Your task to perform on an android device: Search for pizza restaurants on Maps Image 0: 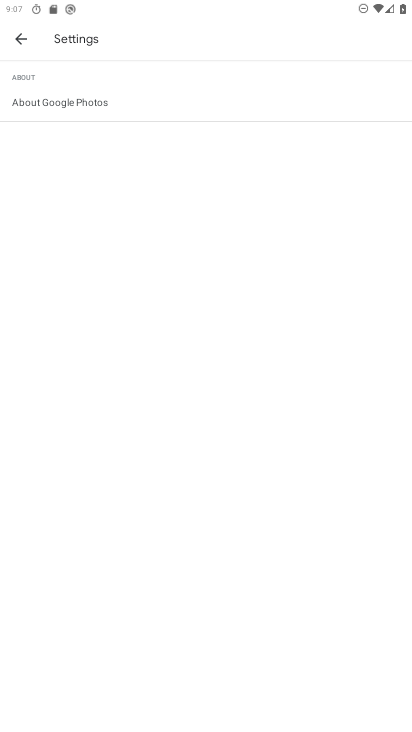
Step 0: press home button
Your task to perform on an android device: Search for pizza restaurants on Maps Image 1: 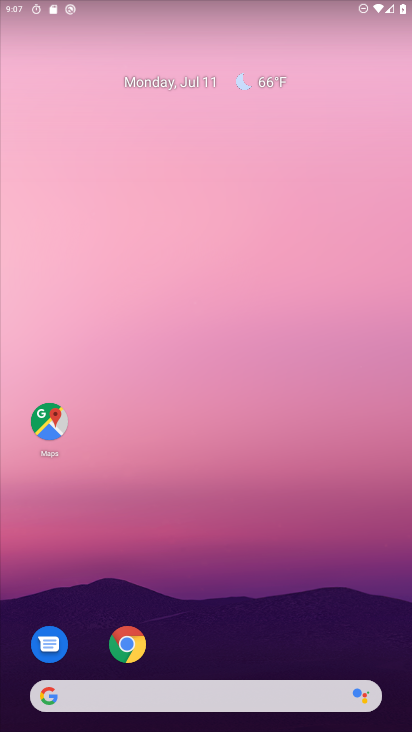
Step 1: drag from (359, 645) to (326, 177)
Your task to perform on an android device: Search for pizza restaurants on Maps Image 2: 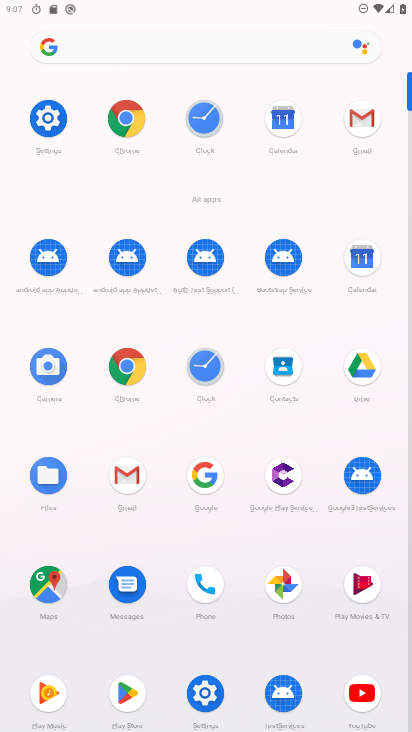
Step 2: drag from (239, 530) to (216, 301)
Your task to perform on an android device: Search for pizza restaurants on Maps Image 3: 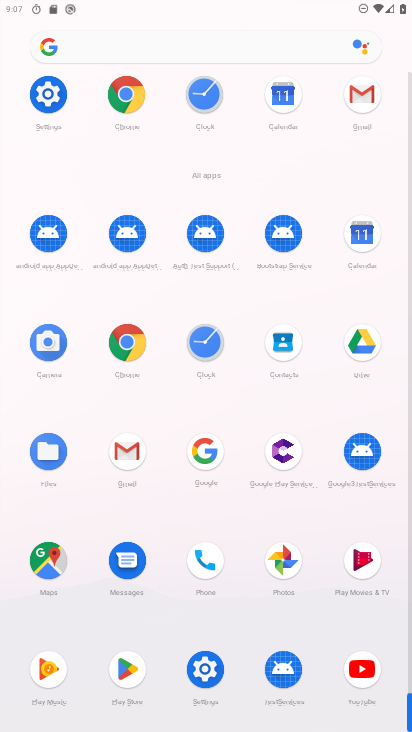
Step 3: click (47, 545)
Your task to perform on an android device: Search for pizza restaurants on Maps Image 4: 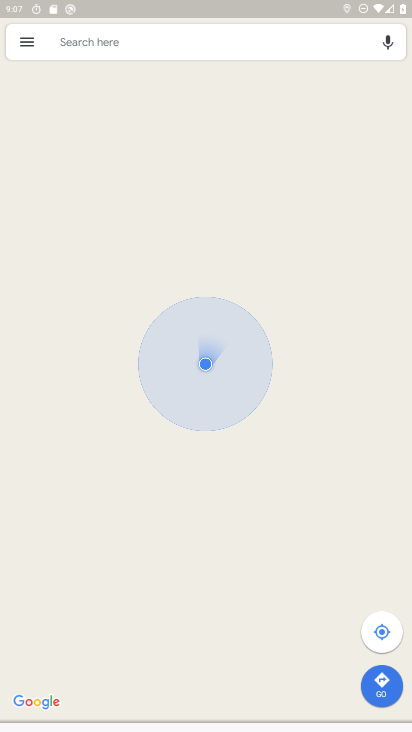
Step 4: click (309, 42)
Your task to perform on an android device: Search for pizza restaurants on Maps Image 5: 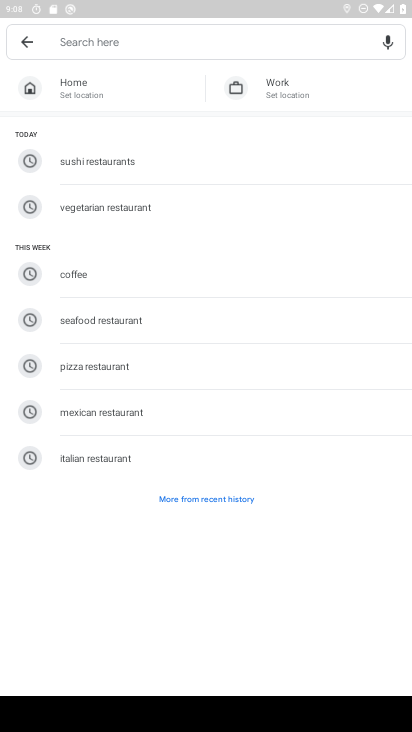
Step 5: type "Pizza Restaurants"
Your task to perform on an android device: Search for pizza restaurants on Maps Image 6: 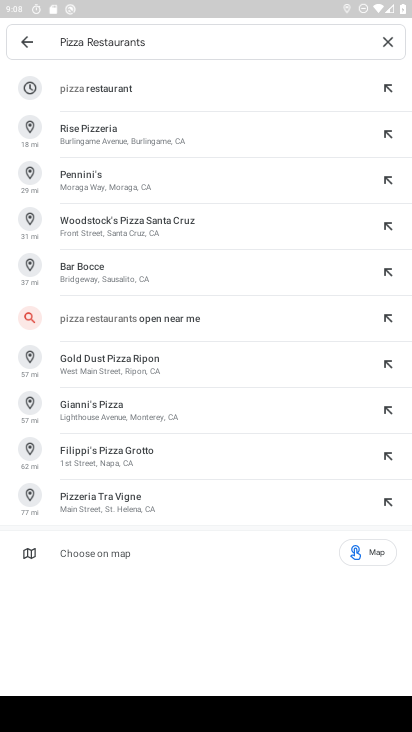
Step 6: press enter
Your task to perform on an android device: Search for pizza restaurants on Maps Image 7: 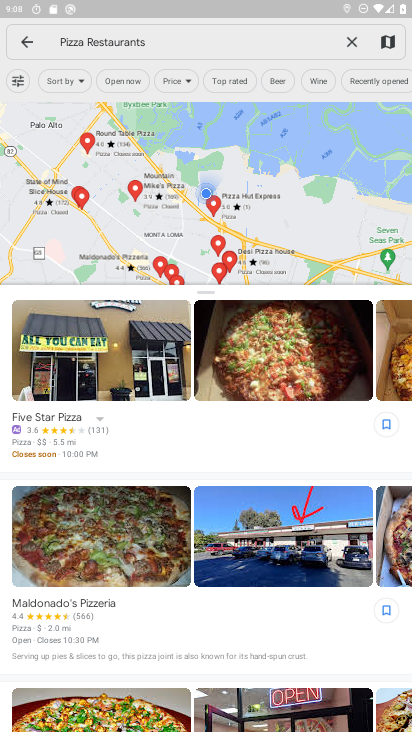
Step 7: task complete